Your task to perform on an android device: Go to Google Image 0: 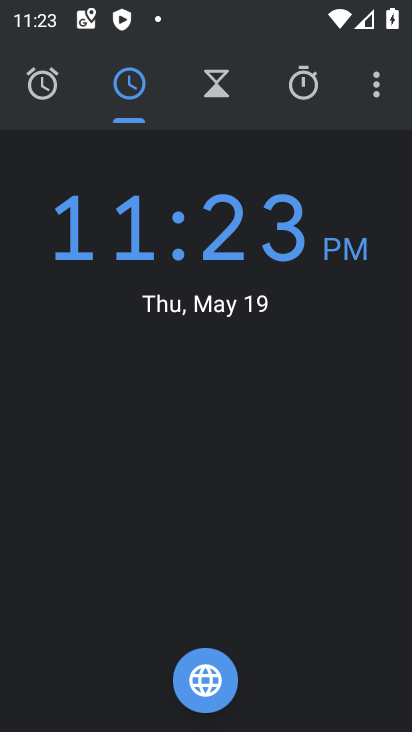
Step 0: press home button
Your task to perform on an android device: Go to Google Image 1: 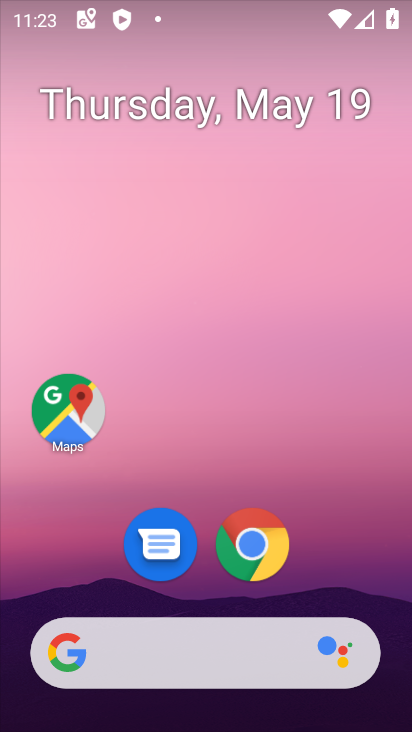
Step 1: drag from (325, 557) to (306, 68)
Your task to perform on an android device: Go to Google Image 2: 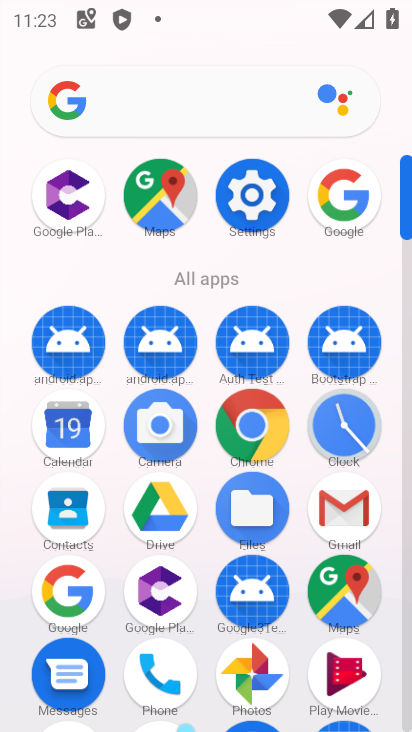
Step 2: click (333, 222)
Your task to perform on an android device: Go to Google Image 3: 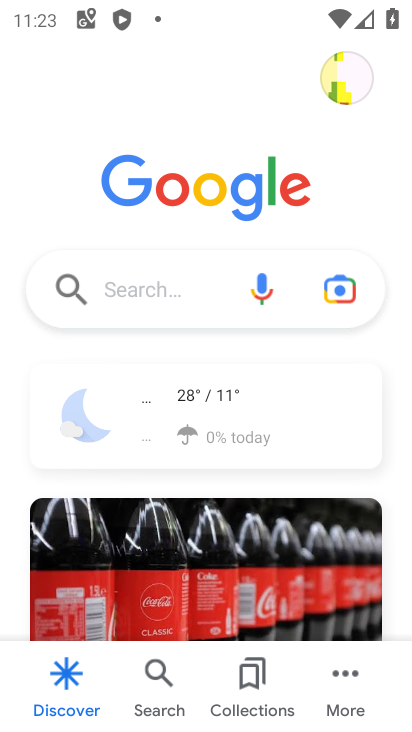
Step 3: task complete